Your task to perform on an android device: Open my contact list Image 0: 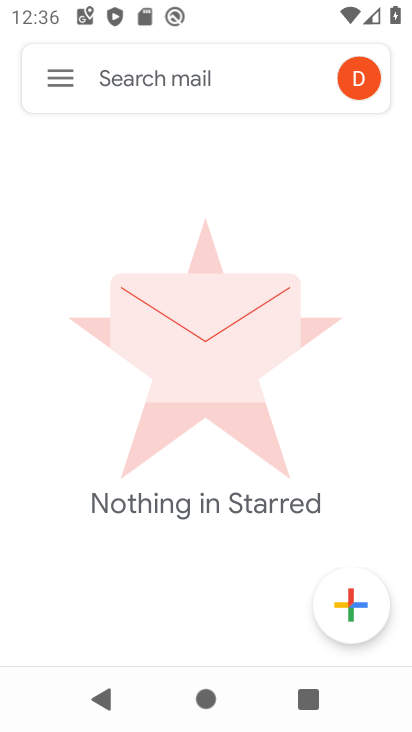
Step 0: press home button
Your task to perform on an android device: Open my contact list Image 1: 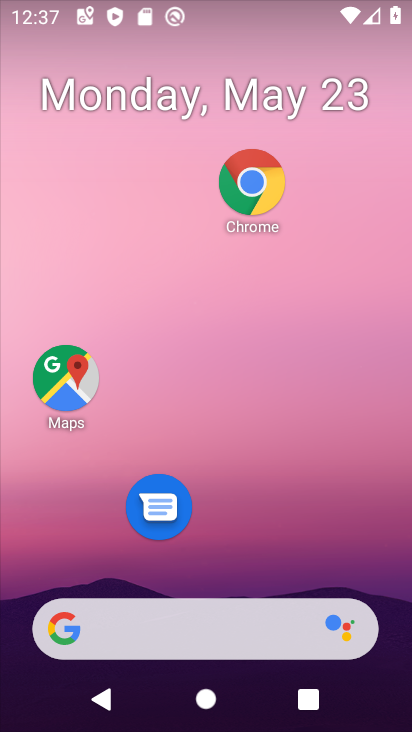
Step 1: drag from (247, 625) to (278, 130)
Your task to perform on an android device: Open my contact list Image 2: 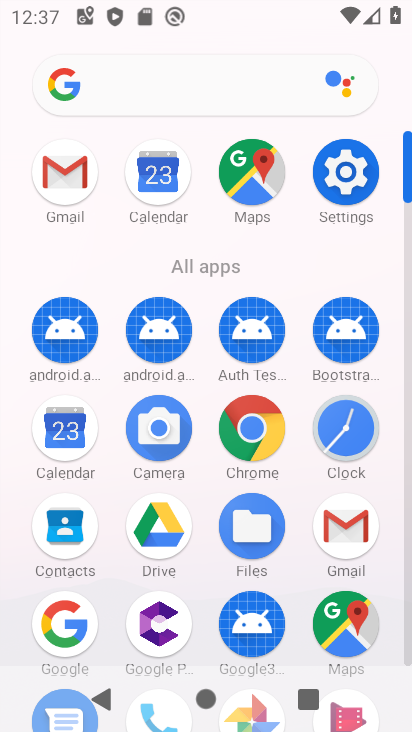
Step 2: click (43, 527)
Your task to perform on an android device: Open my contact list Image 3: 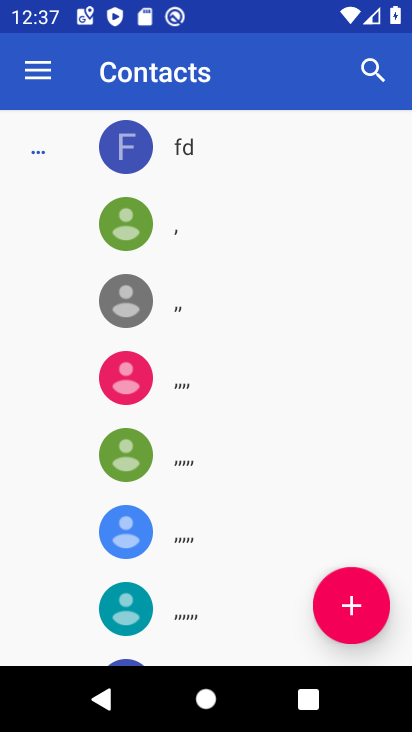
Step 3: task complete